Your task to perform on an android device: manage bookmarks in the chrome app Image 0: 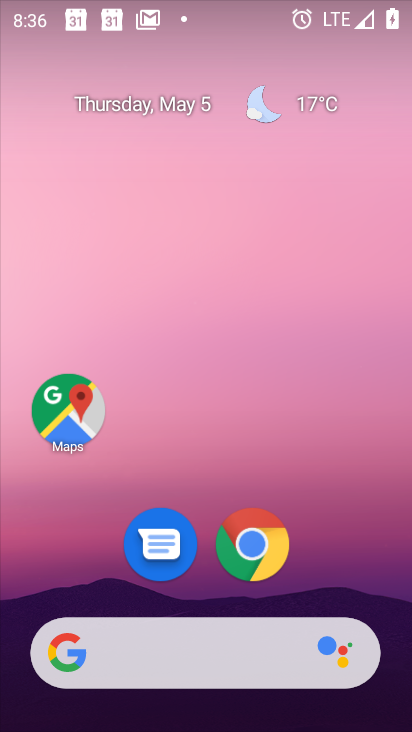
Step 0: click (285, 555)
Your task to perform on an android device: manage bookmarks in the chrome app Image 1: 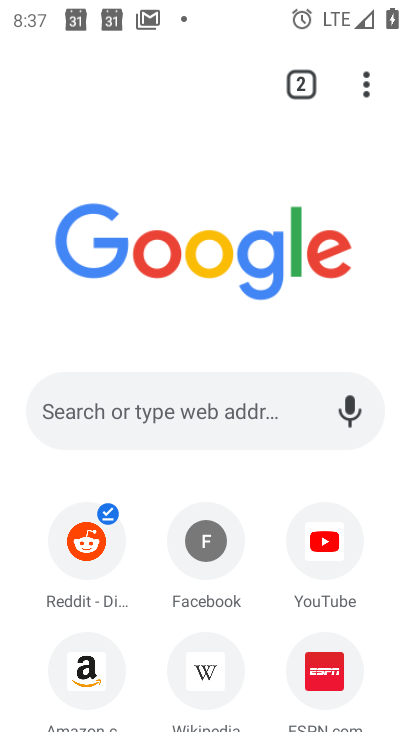
Step 1: click (374, 72)
Your task to perform on an android device: manage bookmarks in the chrome app Image 2: 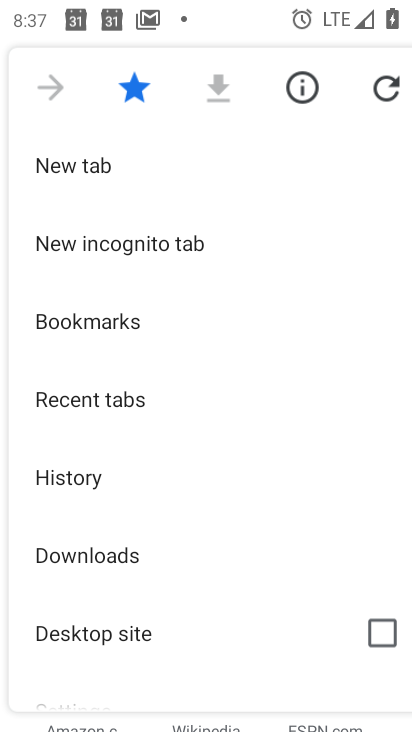
Step 2: click (184, 319)
Your task to perform on an android device: manage bookmarks in the chrome app Image 3: 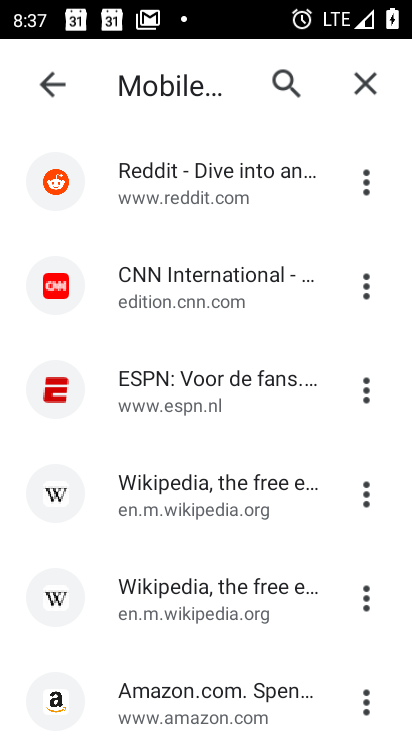
Step 3: click (360, 394)
Your task to perform on an android device: manage bookmarks in the chrome app Image 4: 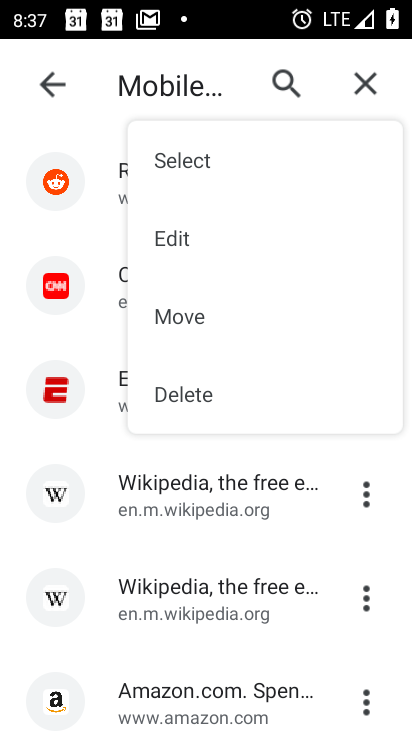
Step 4: click (225, 405)
Your task to perform on an android device: manage bookmarks in the chrome app Image 5: 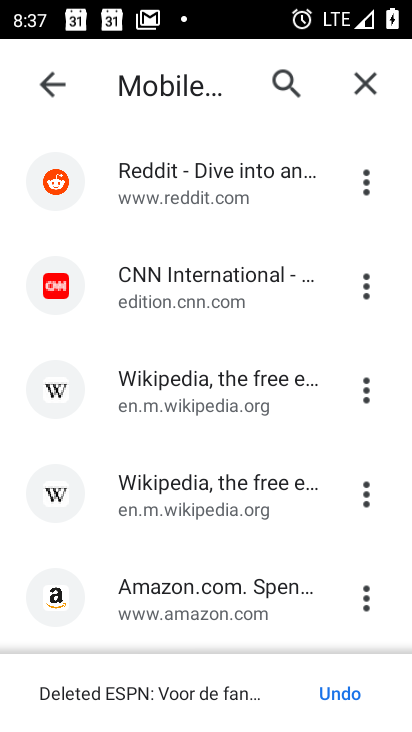
Step 5: task complete